Your task to perform on an android device: Is it going to rain today? Image 0: 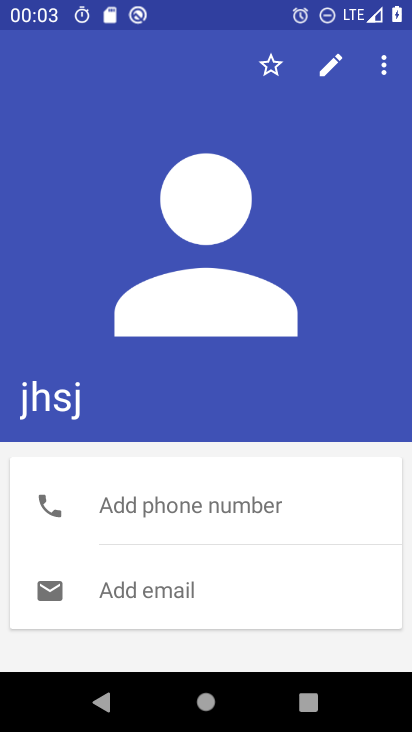
Step 0: press home button
Your task to perform on an android device: Is it going to rain today? Image 1: 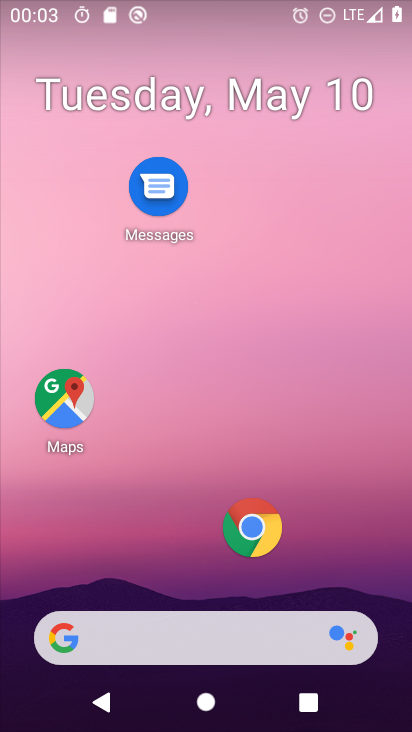
Step 1: drag from (176, 555) to (155, 45)
Your task to perform on an android device: Is it going to rain today? Image 2: 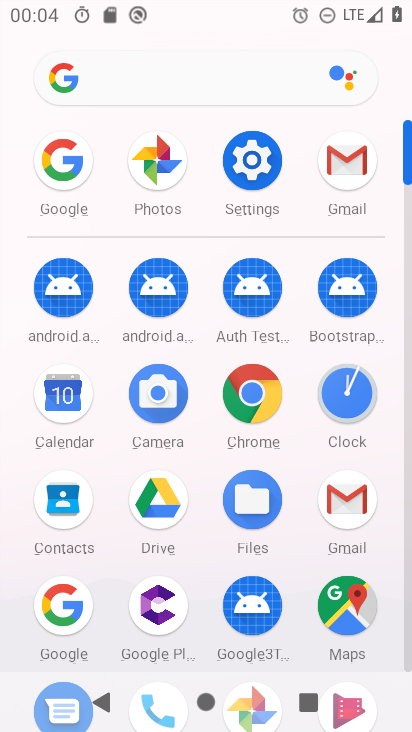
Step 2: click (74, 166)
Your task to perform on an android device: Is it going to rain today? Image 3: 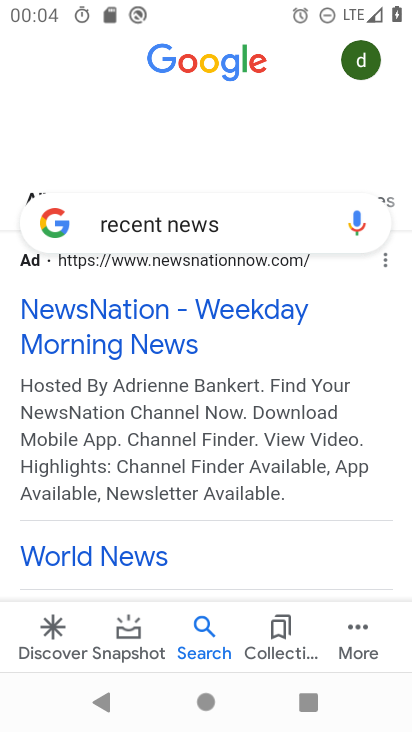
Step 3: click (273, 232)
Your task to perform on an android device: Is it going to rain today? Image 4: 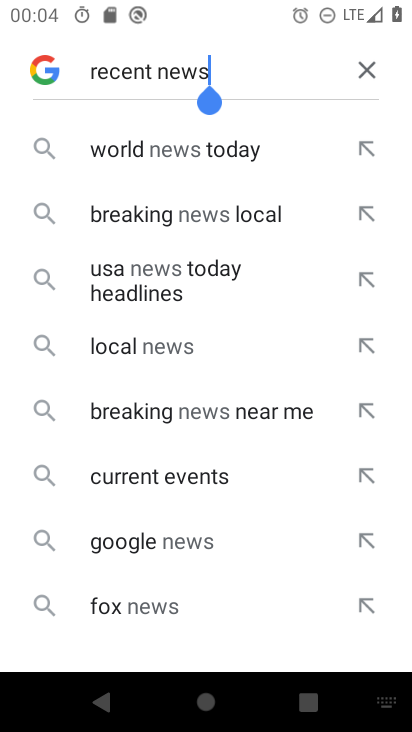
Step 4: click (360, 72)
Your task to perform on an android device: Is it going to rain today? Image 5: 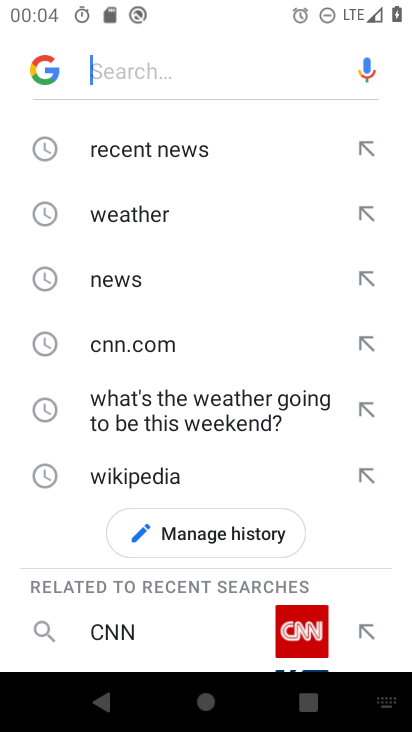
Step 5: type "is it going to rain today"
Your task to perform on an android device: Is it going to rain today? Image 6: 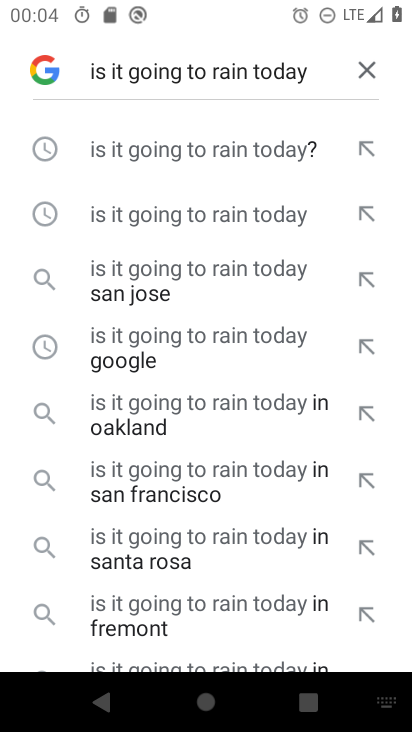
Step 6: click (218, 148)
Your task to perform on an android device: Is it going to rain today? Image 7: 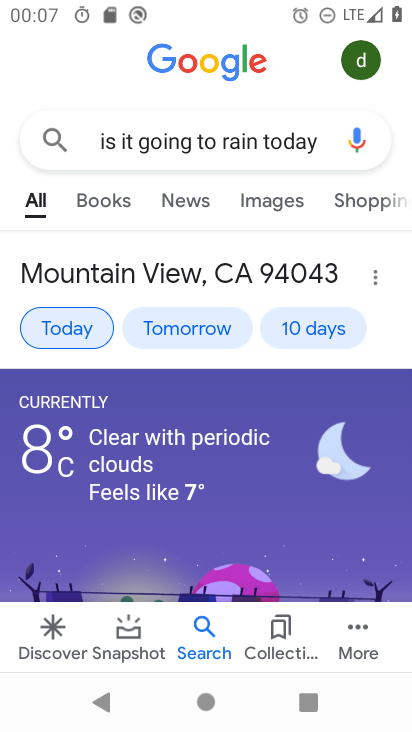
Step 7: task complete